Your task to perform on an android device: check battery use Image 0: 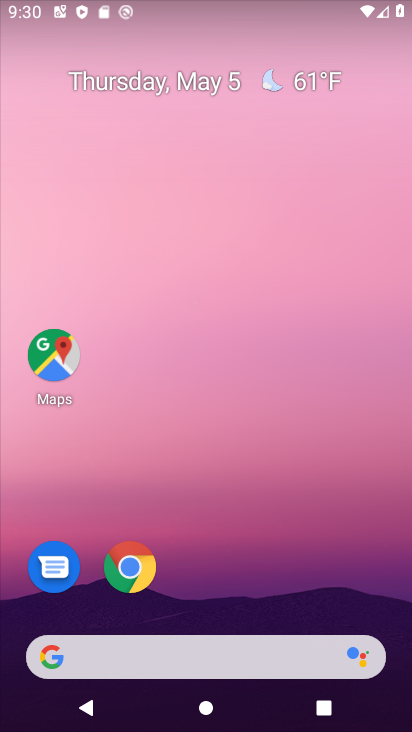
Step 0: drag from (302, 185) to (316, 75)
Your task to perform on an android device: check battery use Image 1: 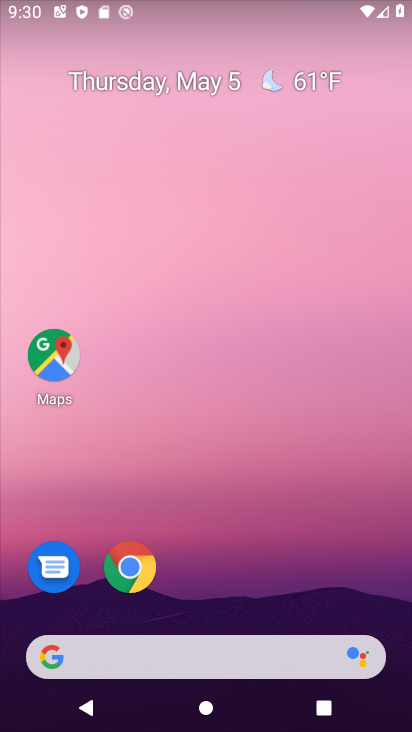
Step 1: drag from (296, 466) to (296, 0)
Your task to perform on an android device: check battery use Image 2: 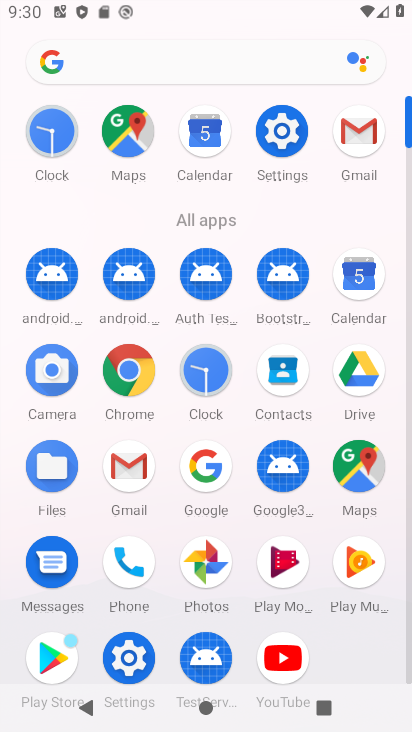
Step 2: click (283, 117)
Your task to perform on an android device: check battery use Image 3: 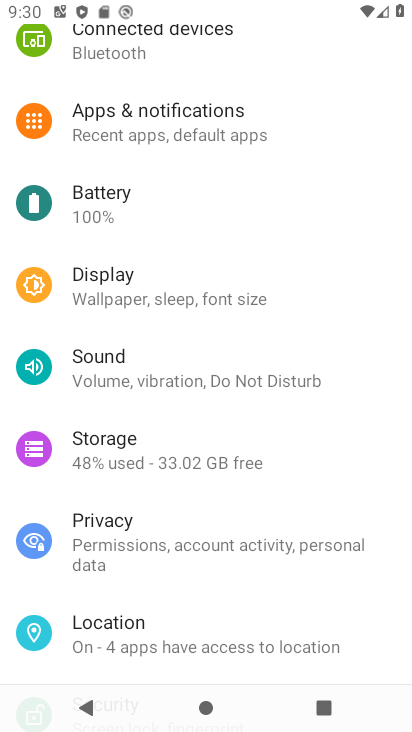
Step 3: click (183, 208)
Your task to perform on an android device: check battery use Image 4: 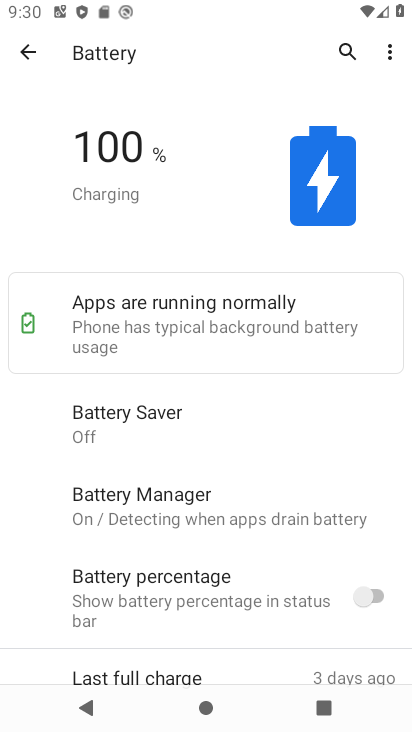
Step 4: click (394, 41)
Your task to perform on an android device: check battery use Image 5: 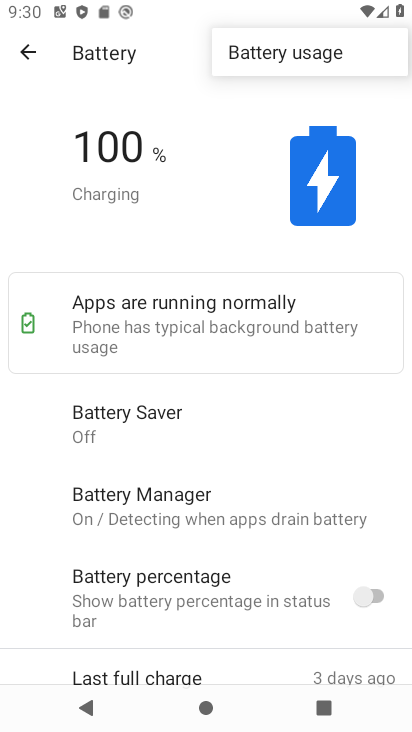
Step 5: click (303, 63)
Your task to perform on an android device: check battery use Image 6: 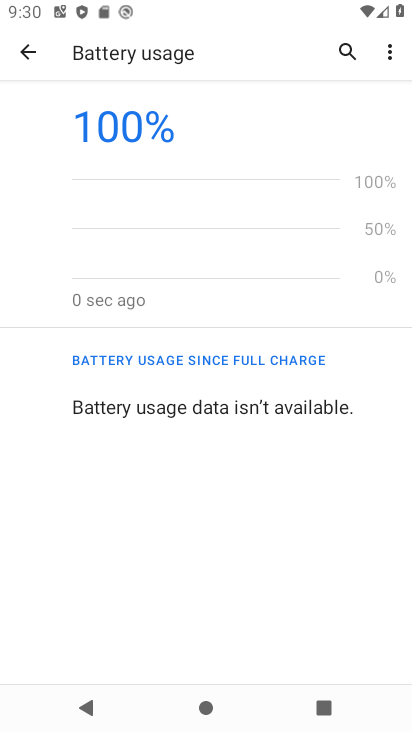
Step 6: task complete